Your task to perform on an android device: What's the weather? Image 0: 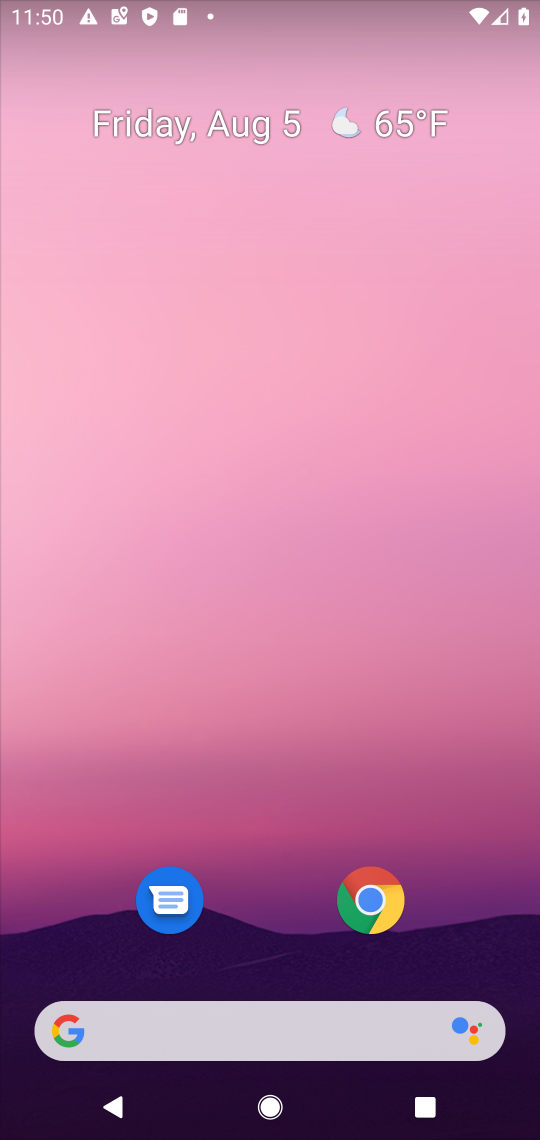
Step 0: drag from (237, 838) to (222, 191)
Your task to perform on an android device: What's the weather? Image 1: 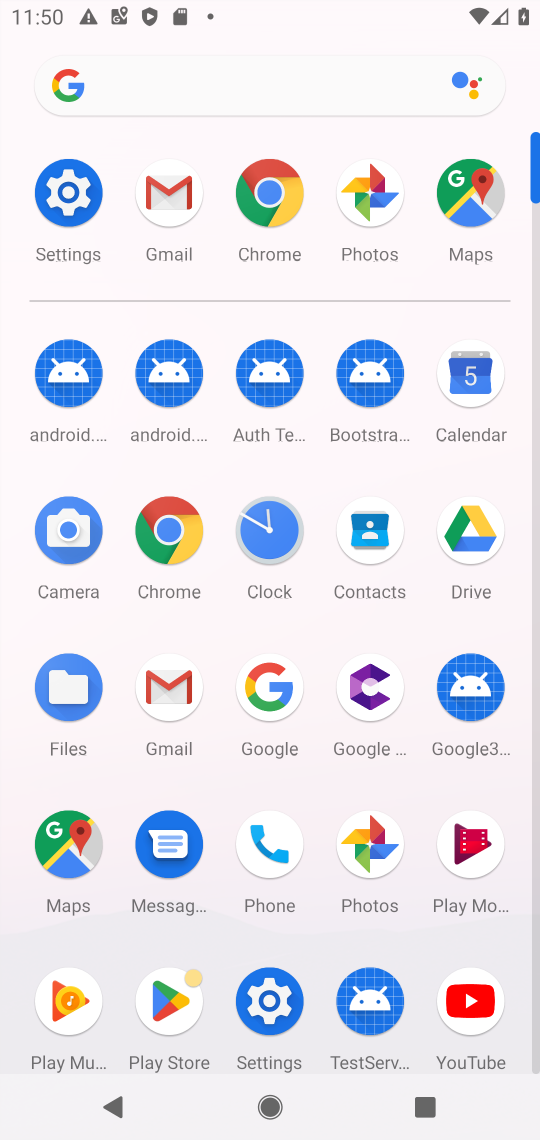
Step 1: click (271, 692)
Your task to perform on an android device: What's the weather? Image 2: 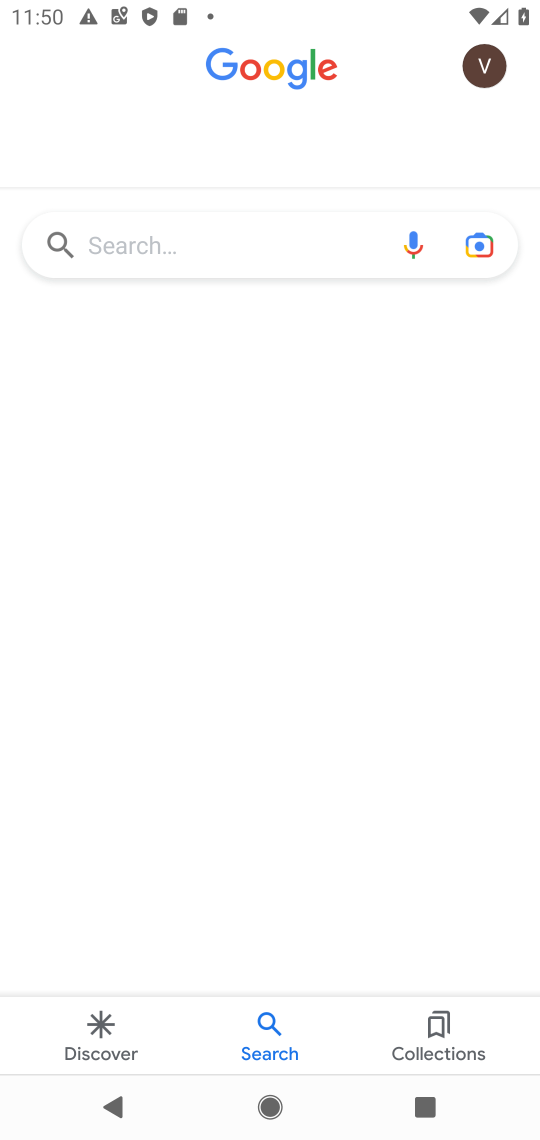
Step 2: click (225, 235)
Your task to perform on an android device: What's the weather? Image 3: 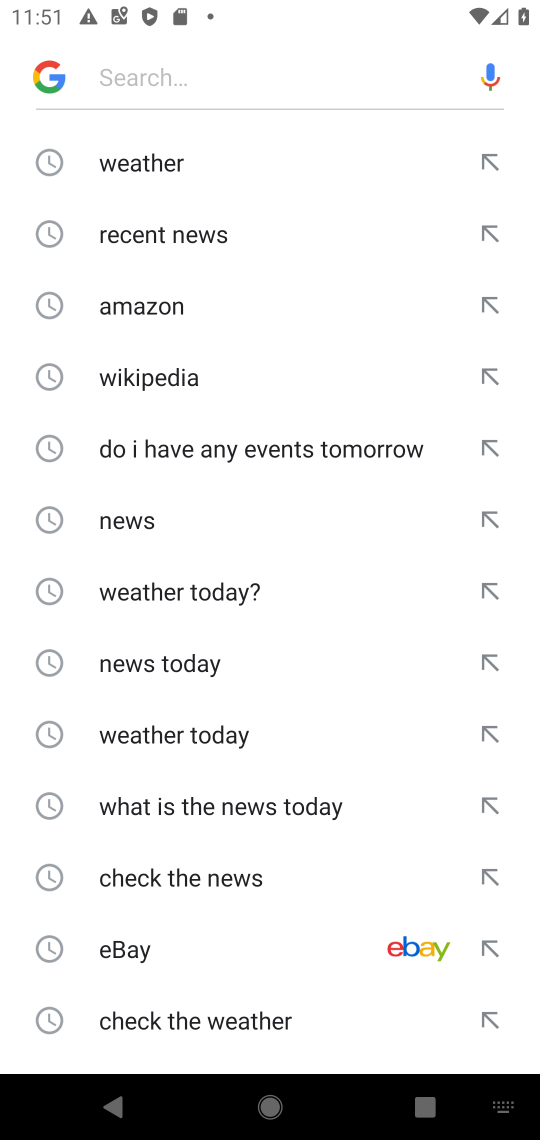
Step 3: click (138, 168)
Your task to perform on an android device: What's the weather? Image 4: 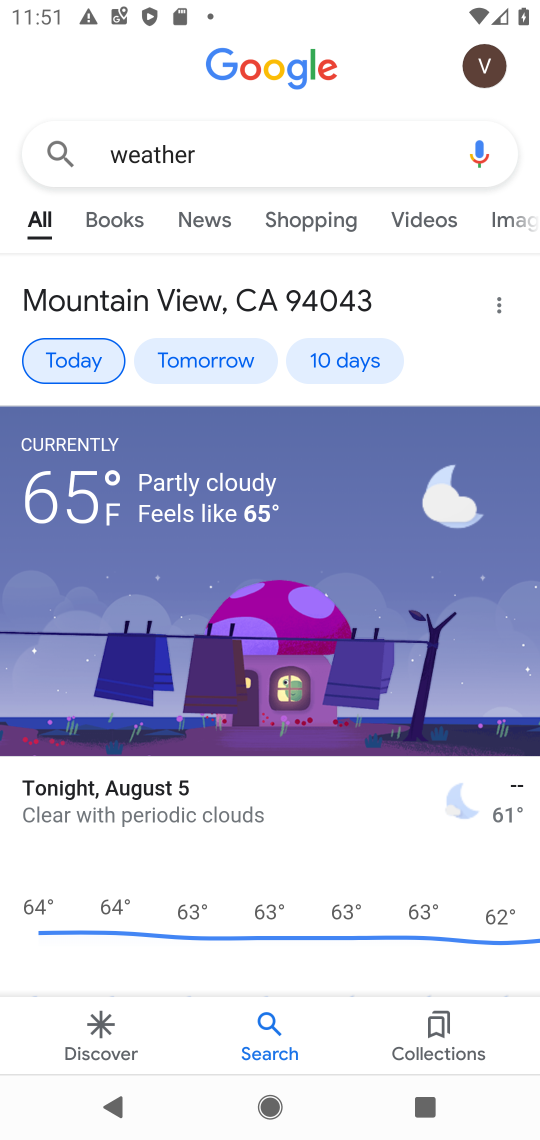
Step 4: click (73, 357)
Your task to perform on an android device: What's the weather? Image 5: 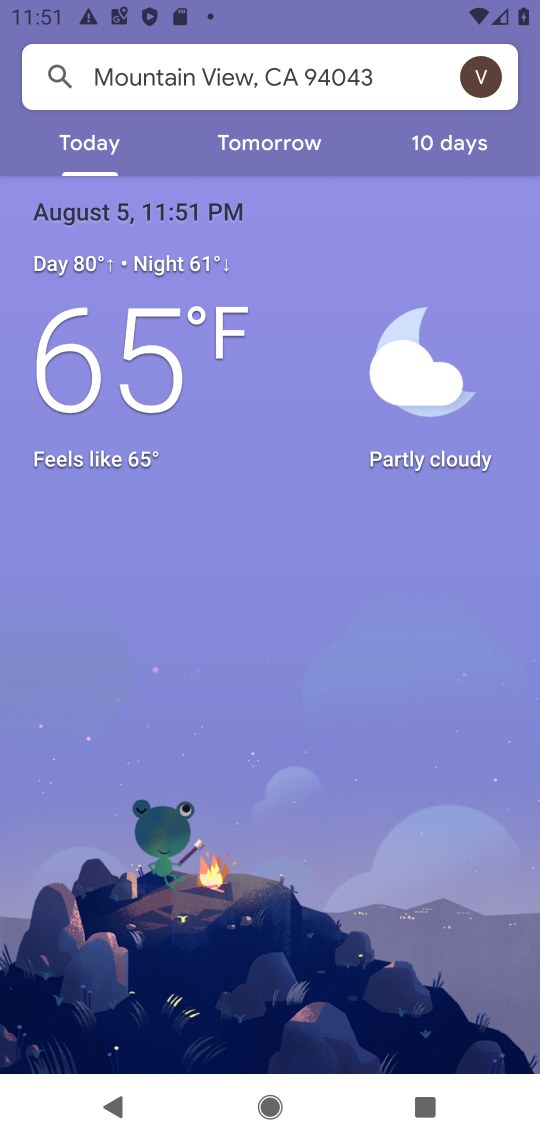
Step 5: task complete